Your task to perform on an android device: open app "Yahoo Mail" (install if not already installed) Image 0: 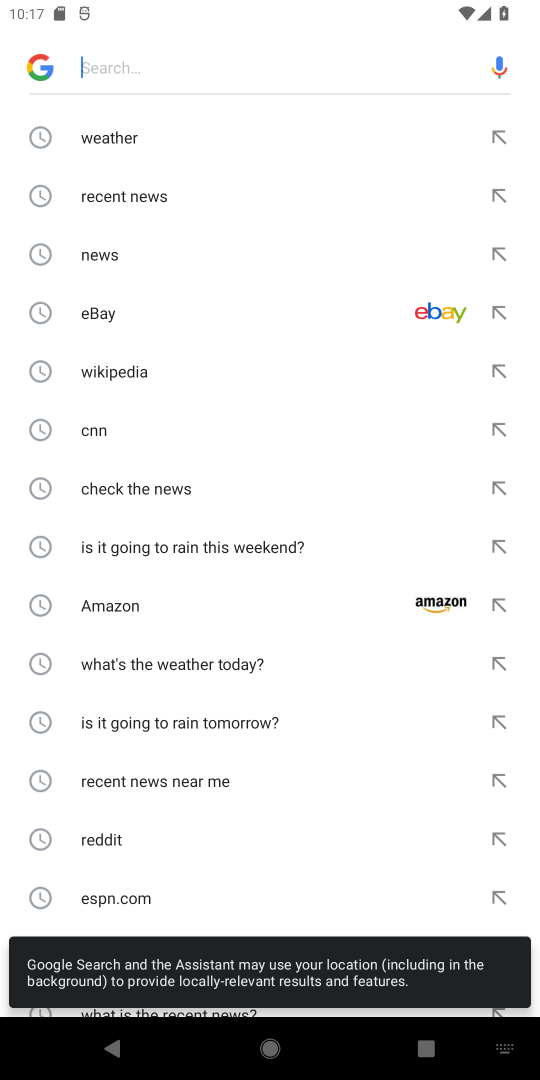
Step 0: press back button
Your task to perform on an android device: open app "Yahoo Mail" (install if not already installed) Image 1: 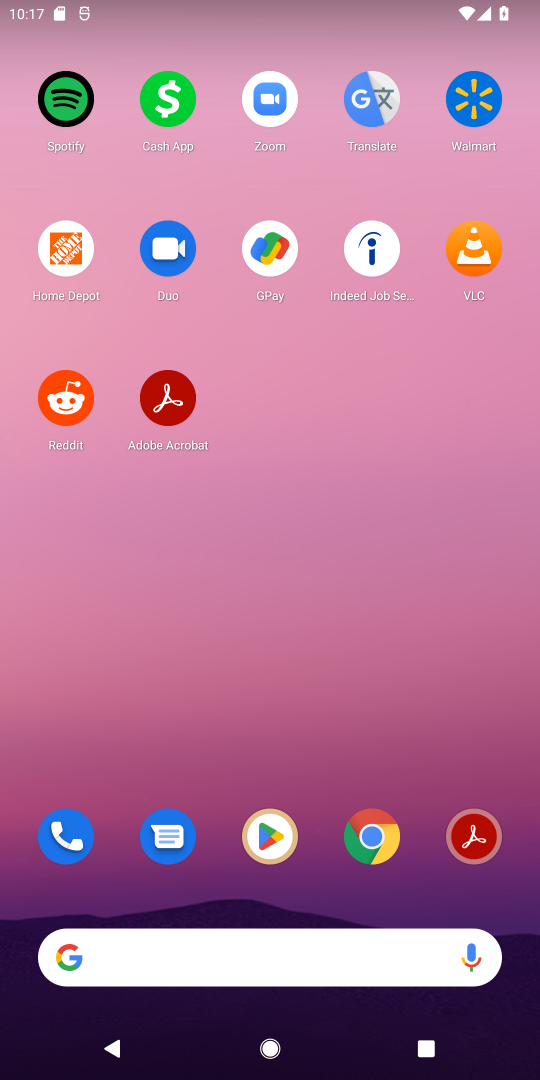
Step 1: click (249, 824)
Your task to perform on an android device: open app "Yahoo Mail" (install if not already installed) Image 2: 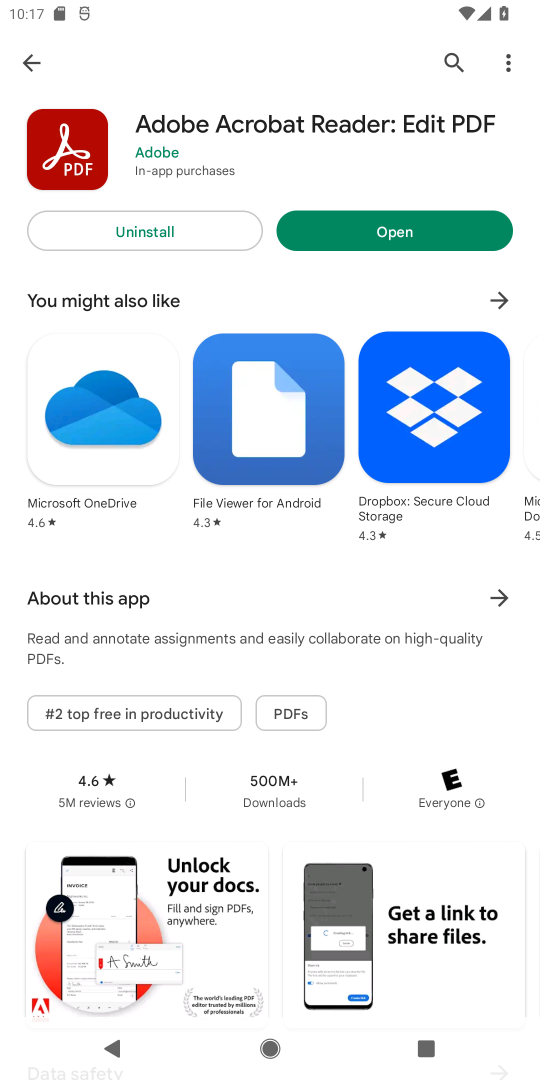
Step 2: click (450, 63)
Your task to perform on an android device: open app "Yahoo Mail" (install if not already installed) Image 3: 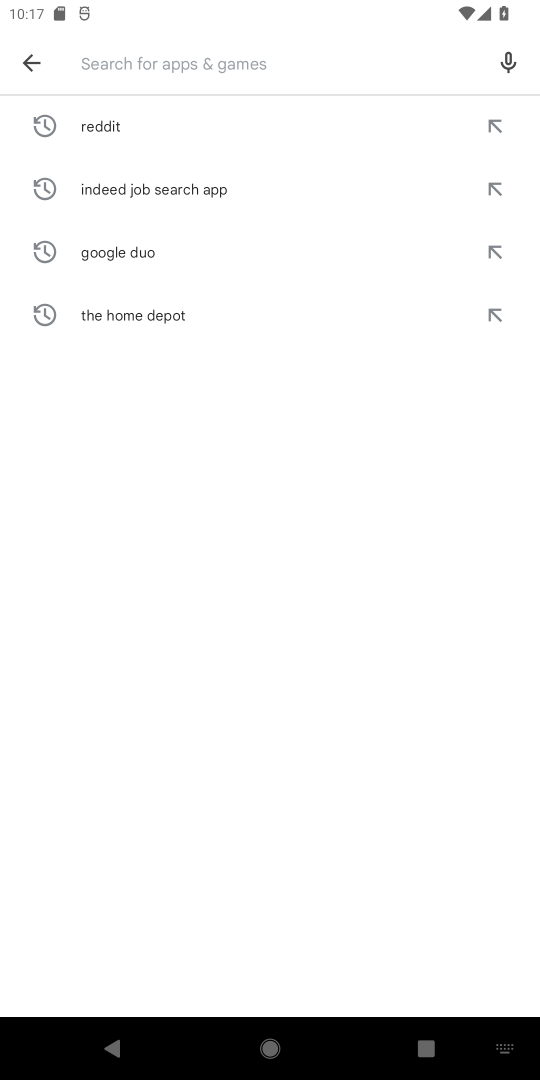
Step 3: type "Yahoo Mai"
Your task to perform on an android device: open app "Yahoo Mail" (install if not already installed) Image 4: 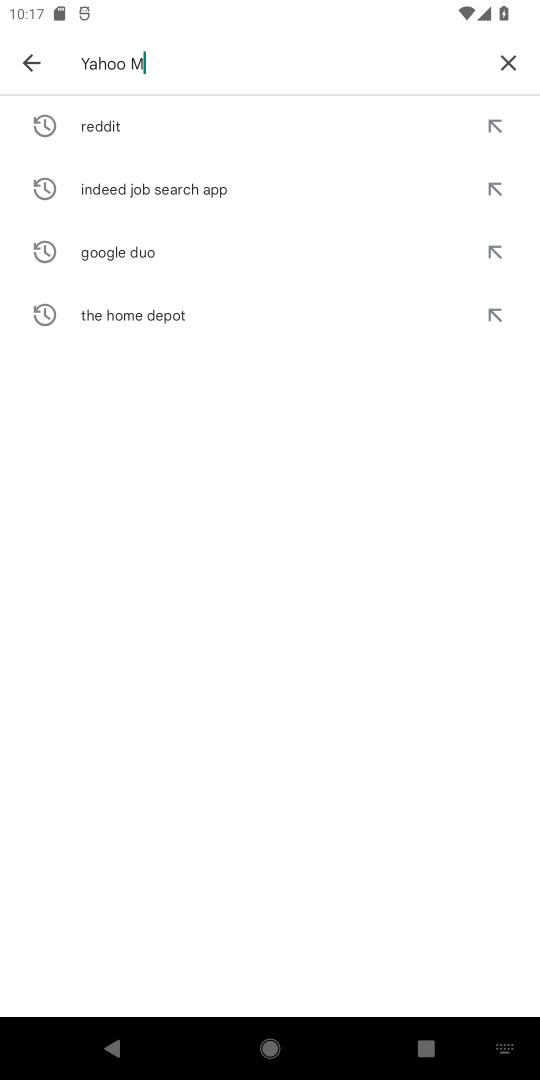
Step 4: type ""
Your task to perform on an android device: open app "Yahoo Mail" (install if not already installed) Image 5: 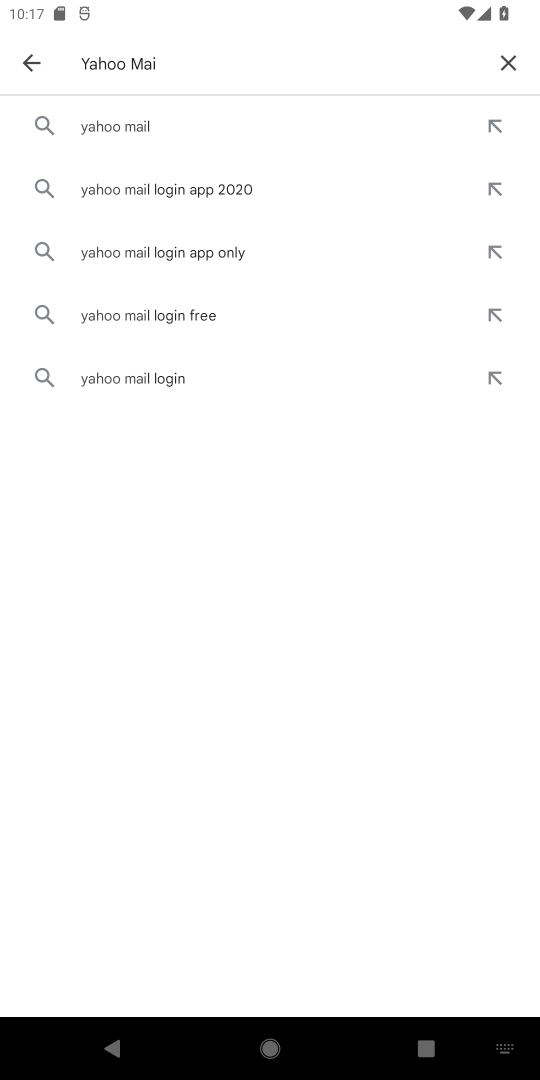
Step 5: click (164, 110)
Your task to perform on an android device: open app "Yahoo Mail" (install if not already installed) Image 6: 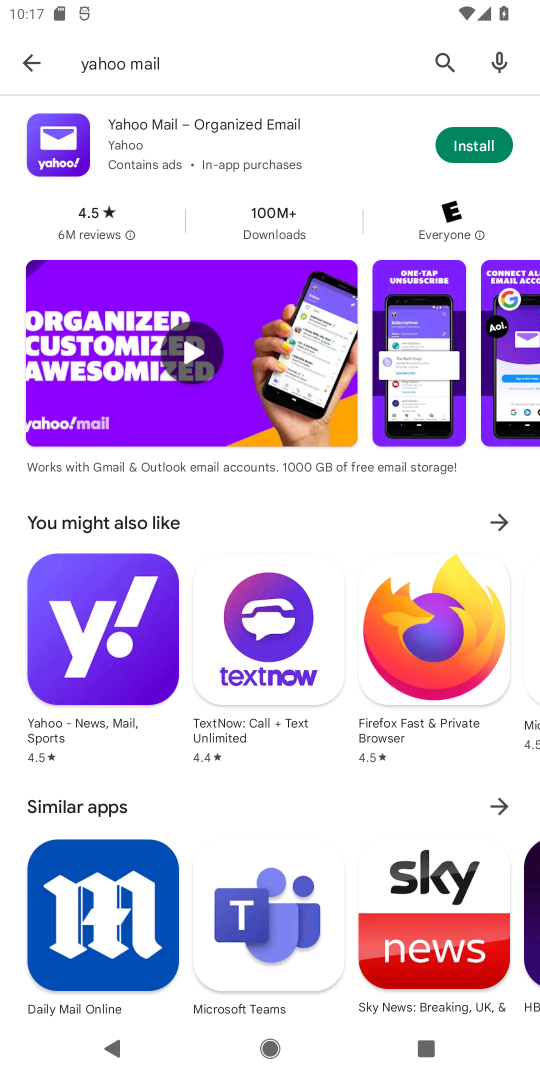
Step 6: click (476, 146)
Your task to perform on an android device: open app "Yahoo Mail" (install if not already installed) Image 7: 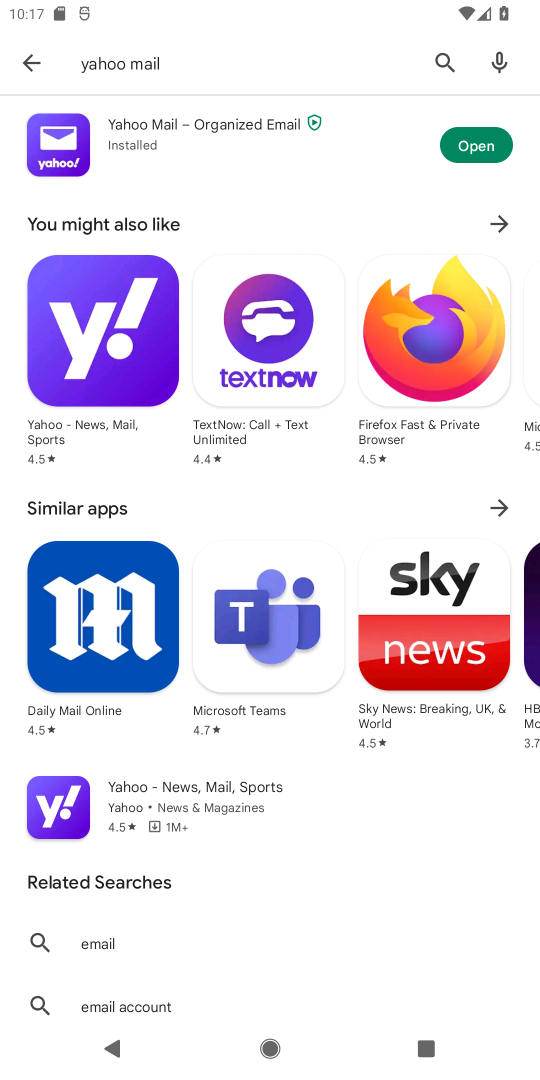
Step 7: click (476, 146)
Your task to perform on an android device: open app "Yahoo Mail" (install if not already installed) Image 8: 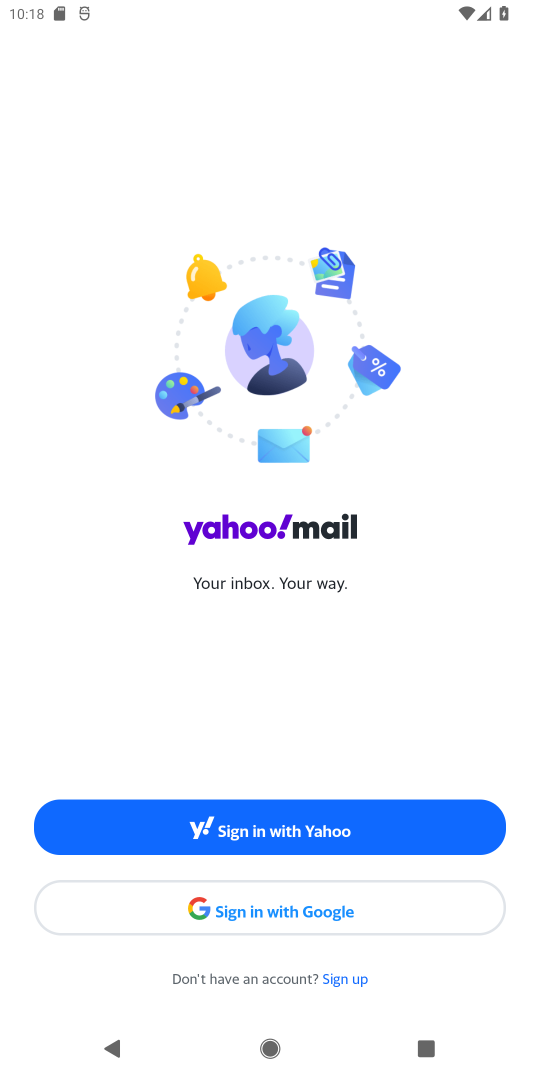
Step 8: task complete